Your task to perform on an android device: create a new album in the google photos Image 0: 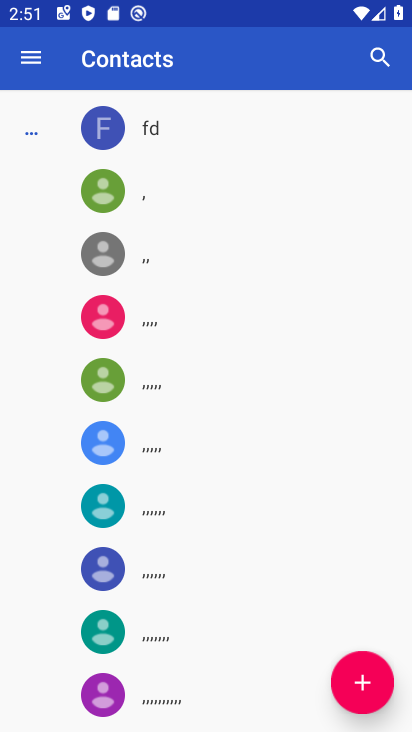
Step 0: press home button
Your task to perform on an android device: create a new album in the google photos Image 1: 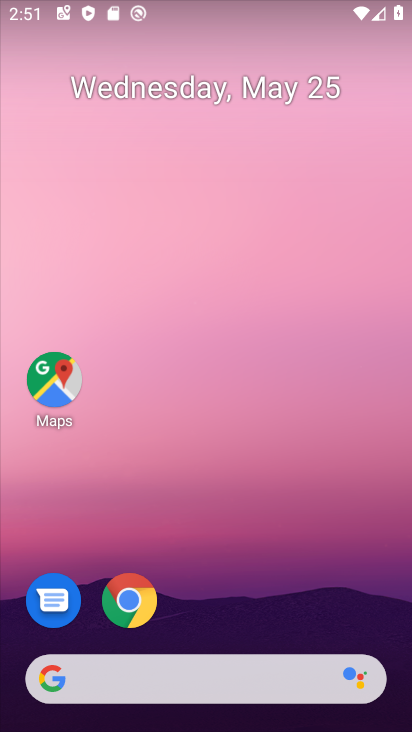
Step 1: drag from (41, 605) to (328, 121)
Your task to perform on an android device: create a new album in the google photos Image 2: 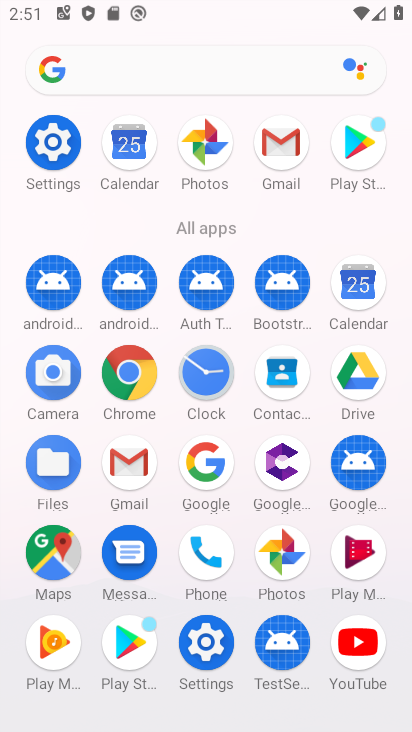
Step 2: click (201, 136)
Your task to perform on an android device: create a new album in the google photos Image 3: 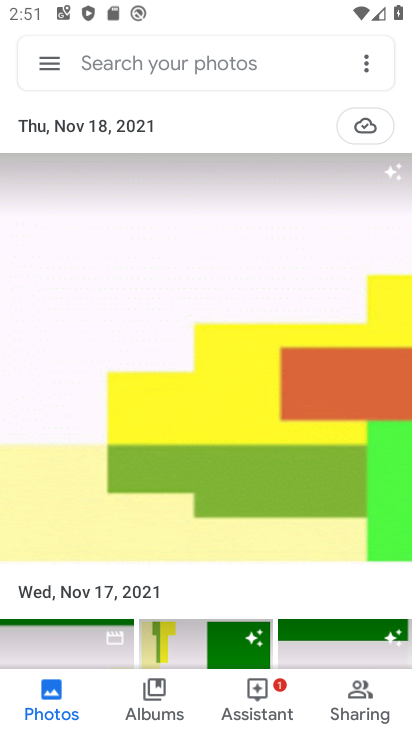
Step 3: click (362, 65)
Your task to perform on an android device: create a new album in the google photos Image 4: 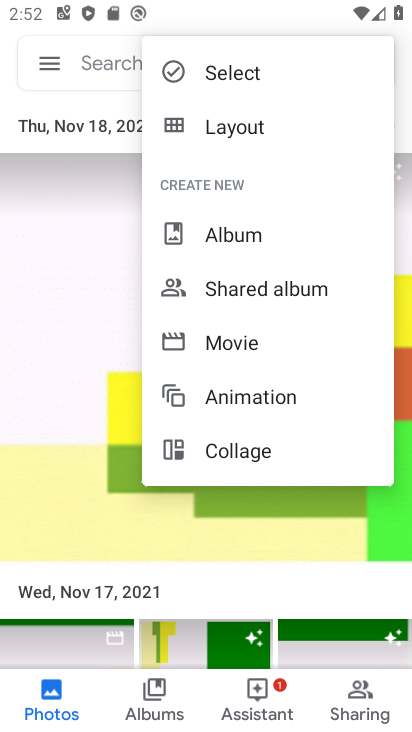
Step 4: click (240, 240)
Your task to perform on an android device: create a new album in the google photos Image 5: 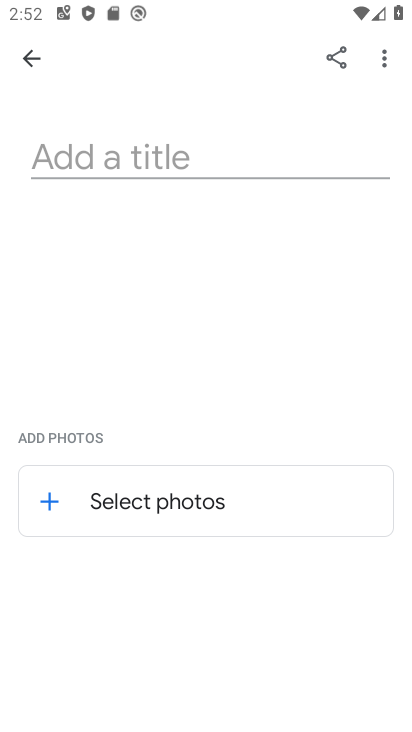
Step 5: click (125, 144)
Your task to perform on an android device: create a new album in the google photos Image 6: 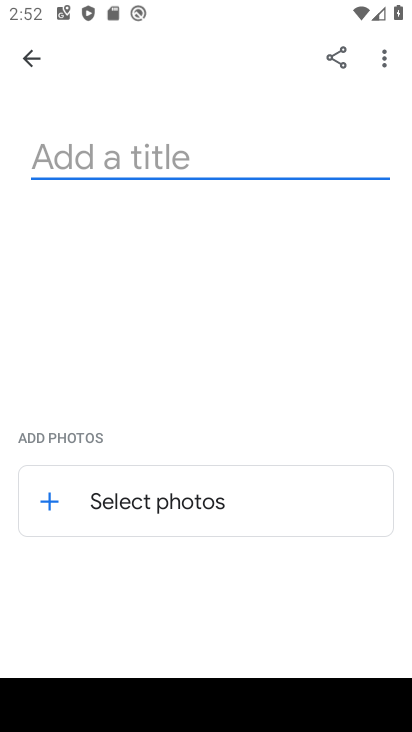
Step 6: type "gfgfg"
Your task to perform on an android device: create a new album in the google photos Image 7: 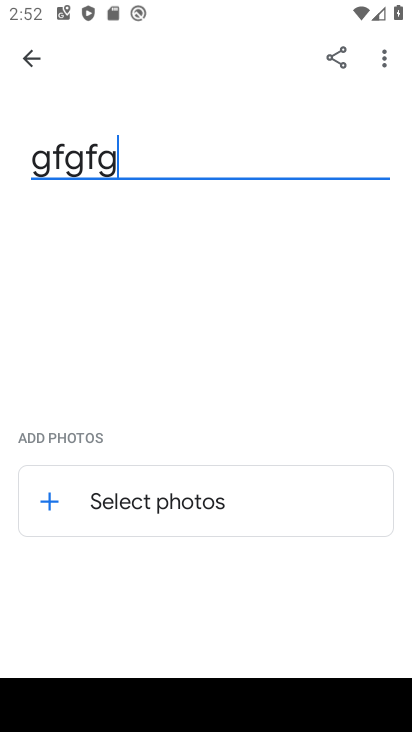
Step 7: type ""
Your task to perform on an android device: create a new album in the google photos Image 8: 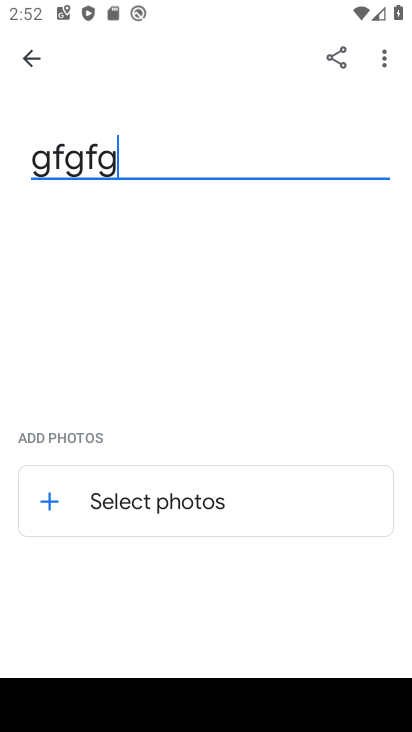
Step 8: click (182, 511)
Your task to perform on an android device: create a new album in the google photos Image 9: 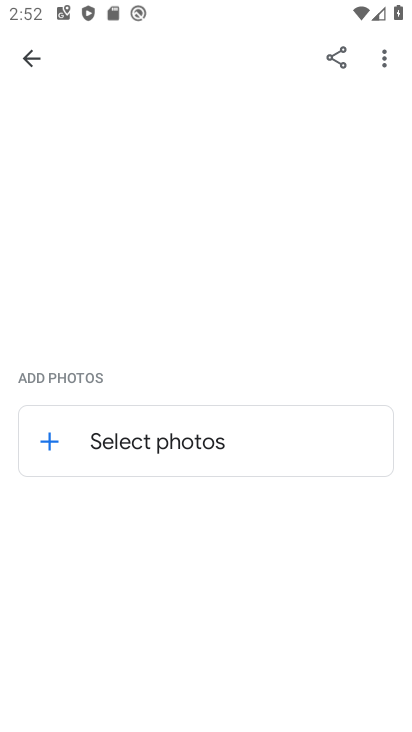
Step 9: click (113, 436)
Your task to perform on an android device: create a new album in the google photos Image 10: 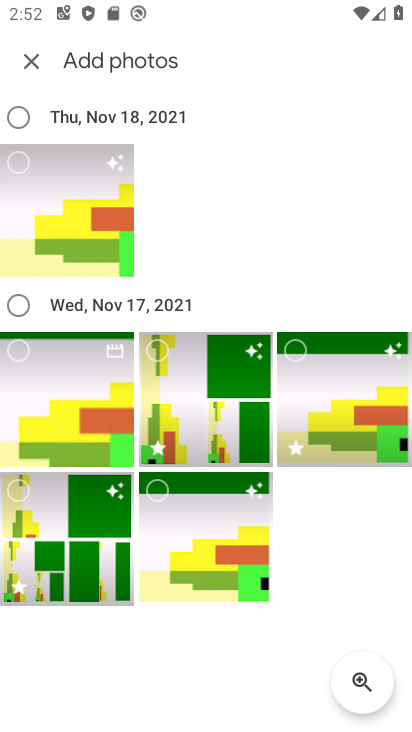
Step 10: click (296, 349)
Your task to perform on an android device: create a new album in the google photos Image 11: 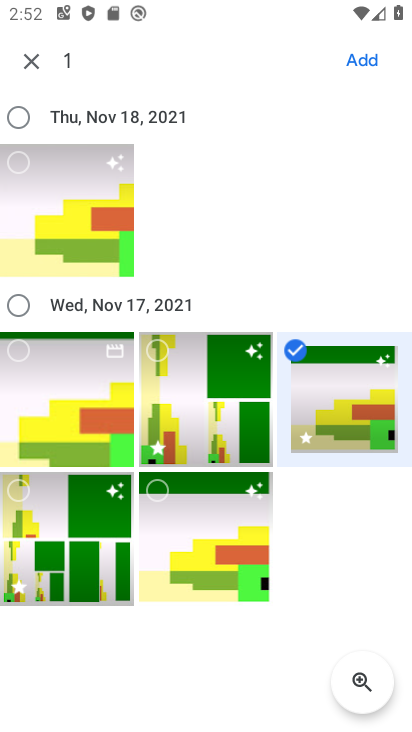
Step 11: click (372, 59)
Your task to perform on an android device: create a new album in the google photos Image 12: 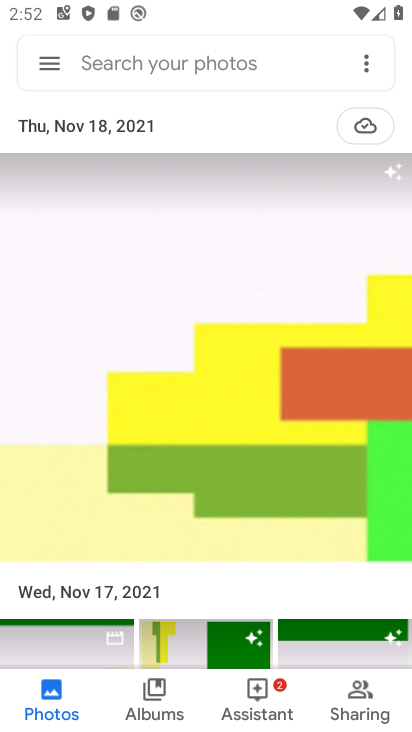
Step 12: task complete